Your task to perform on an android device: turn on the 12-hour format for clock Image 0: 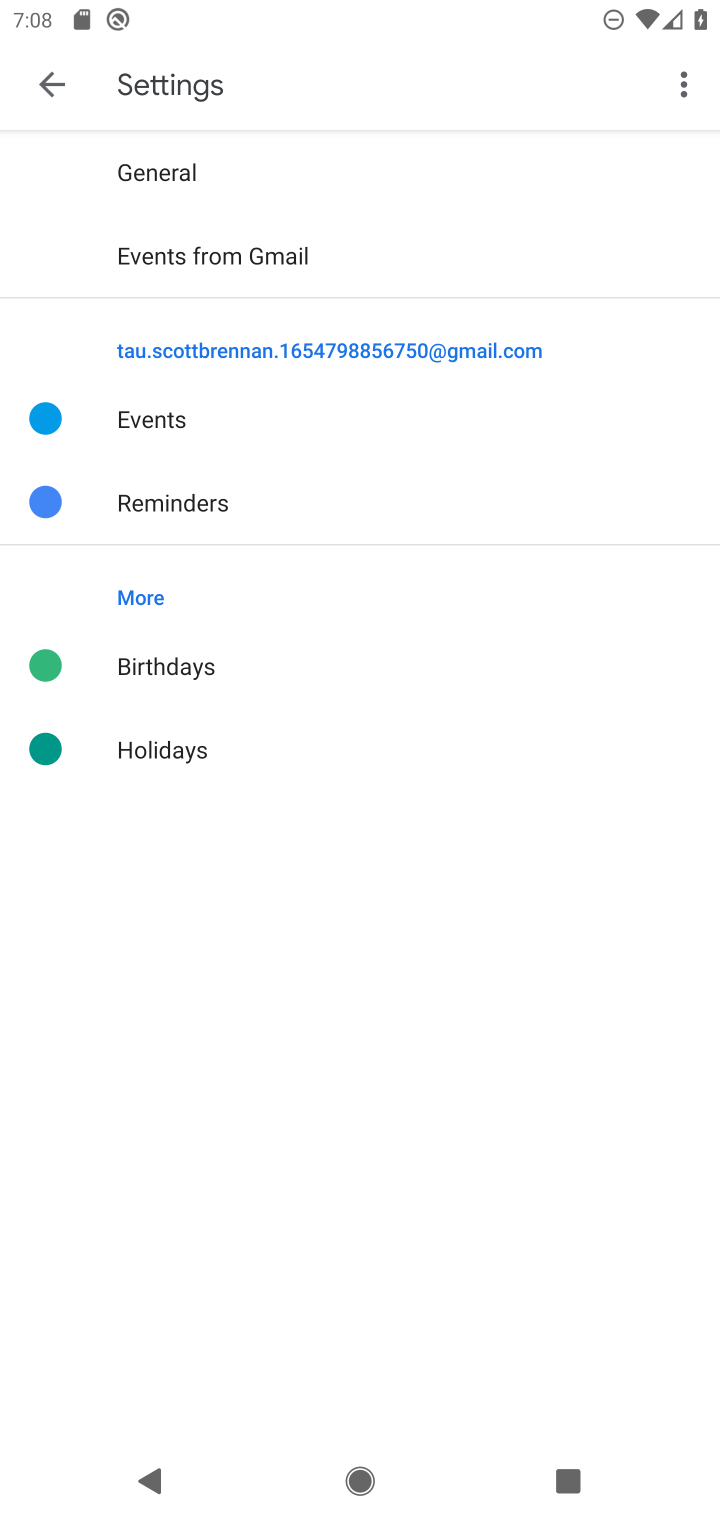
Step 0: press home button
Your task to perform on an android device: turn on the 12-hour format for clock Image 1: 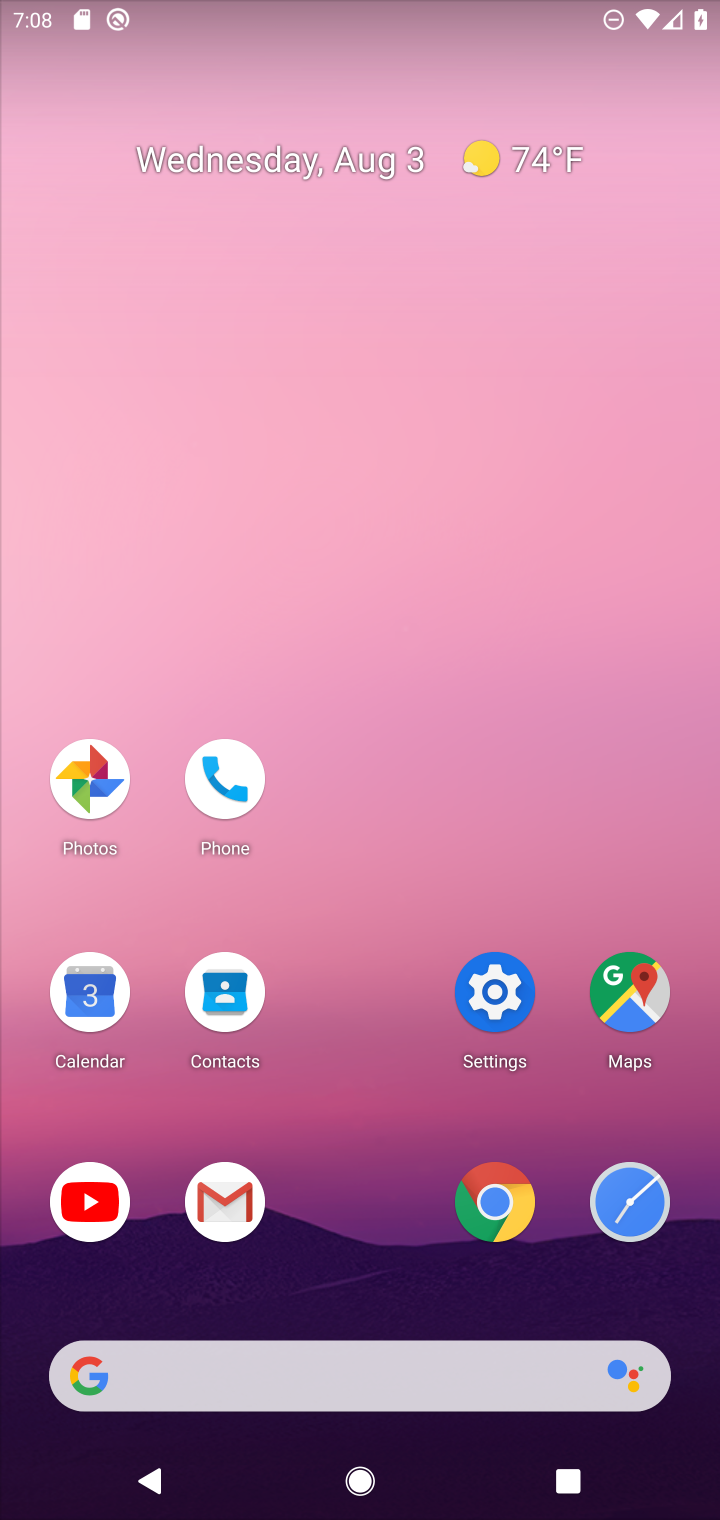
Step 1: click (626, 1199)
Your task to perform on an android device: turn on the 12-hour format for clock Image 2: 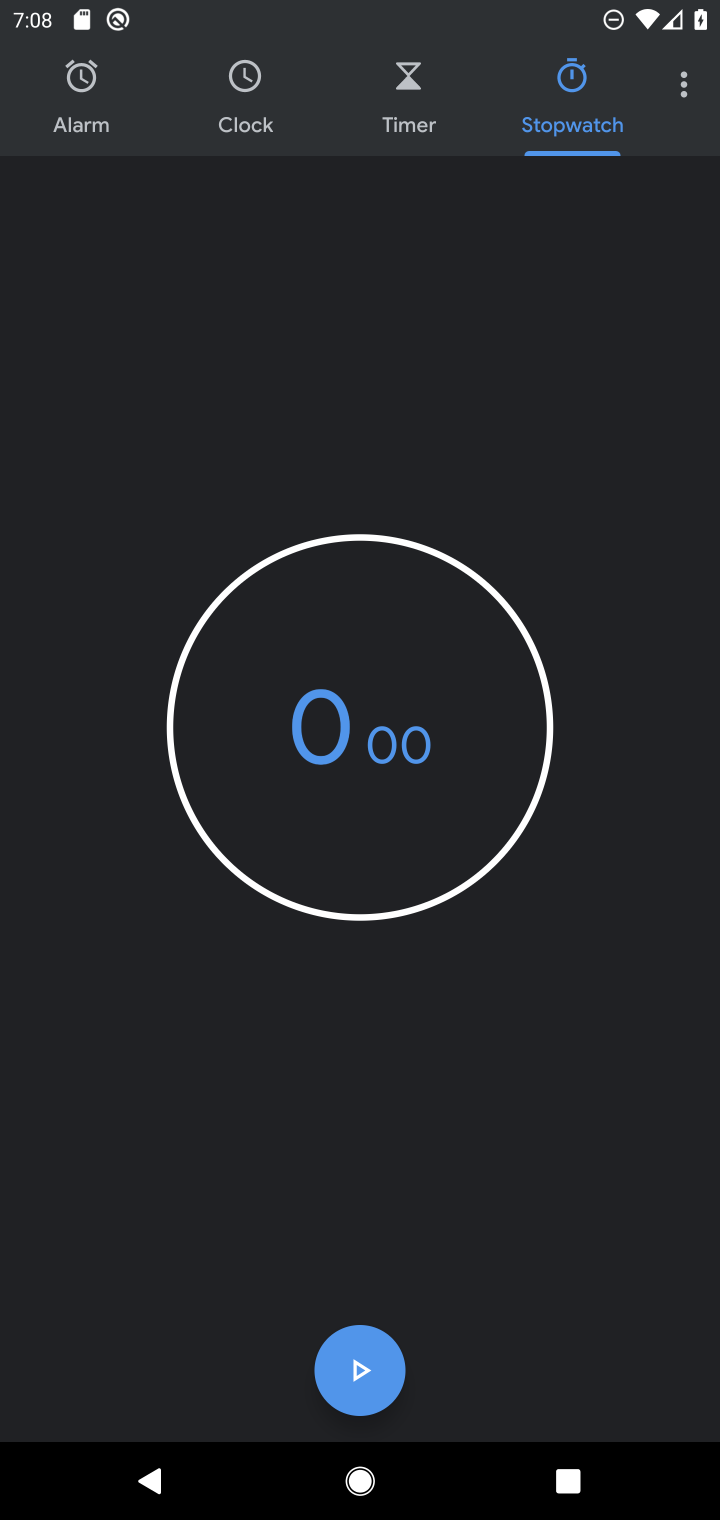
Step 2: click (686, 80)
Your task to perform on an android device: turn on the 12-hour format for clock Image 3: 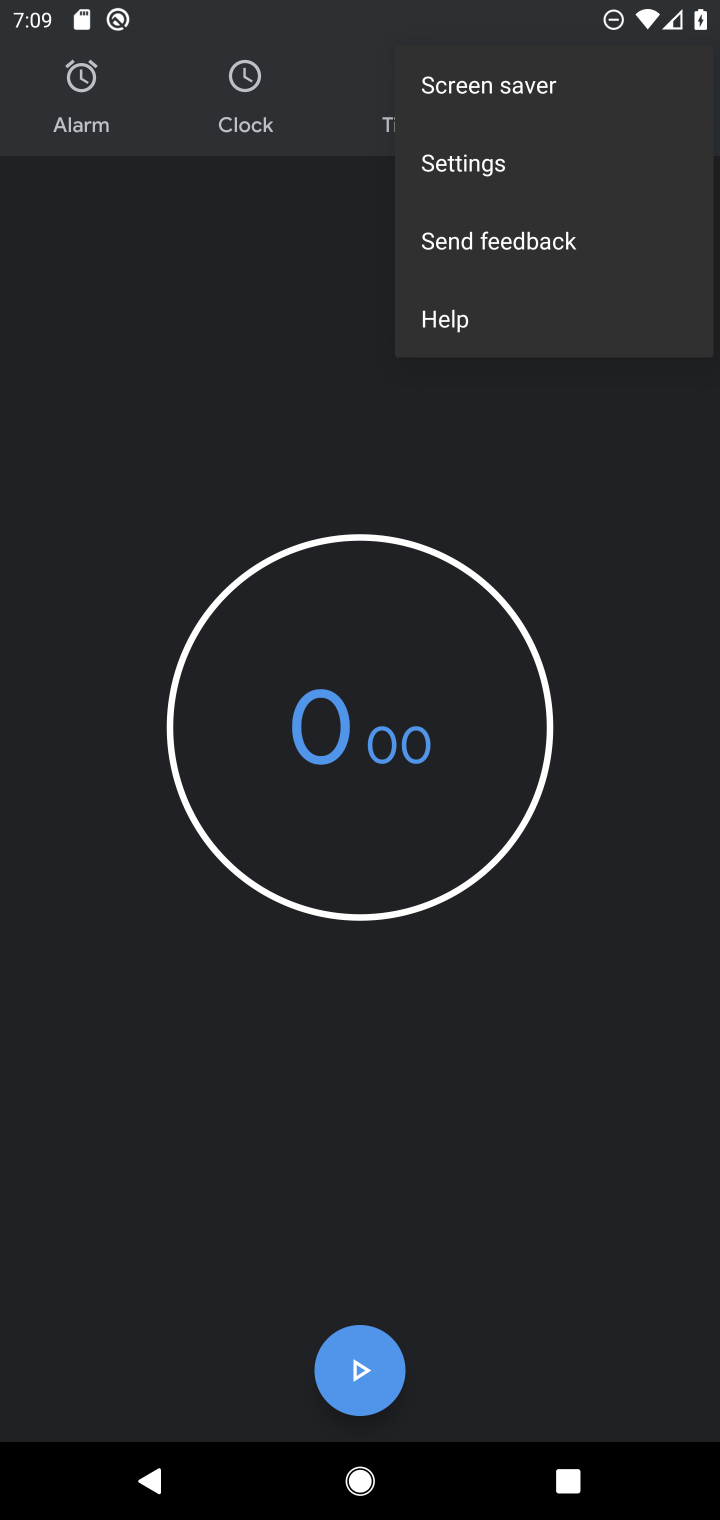
Step 3: click (486, 168)
Your task to perform on an android device: turn on the 12-hour format for clock Image 4: 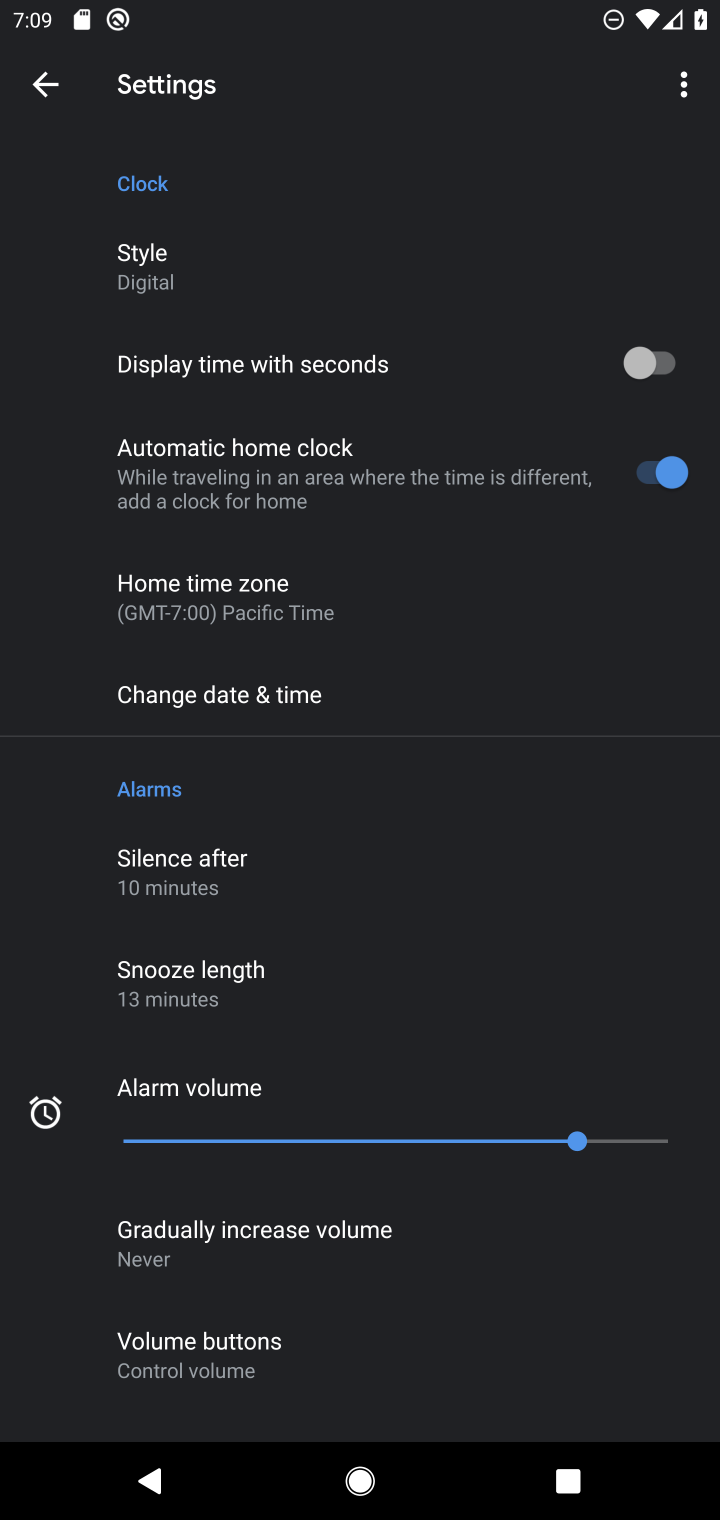
Step 4: click (215, 696)
Your task to perform on an android device: turn on the 12-hour format for clock Image 5: 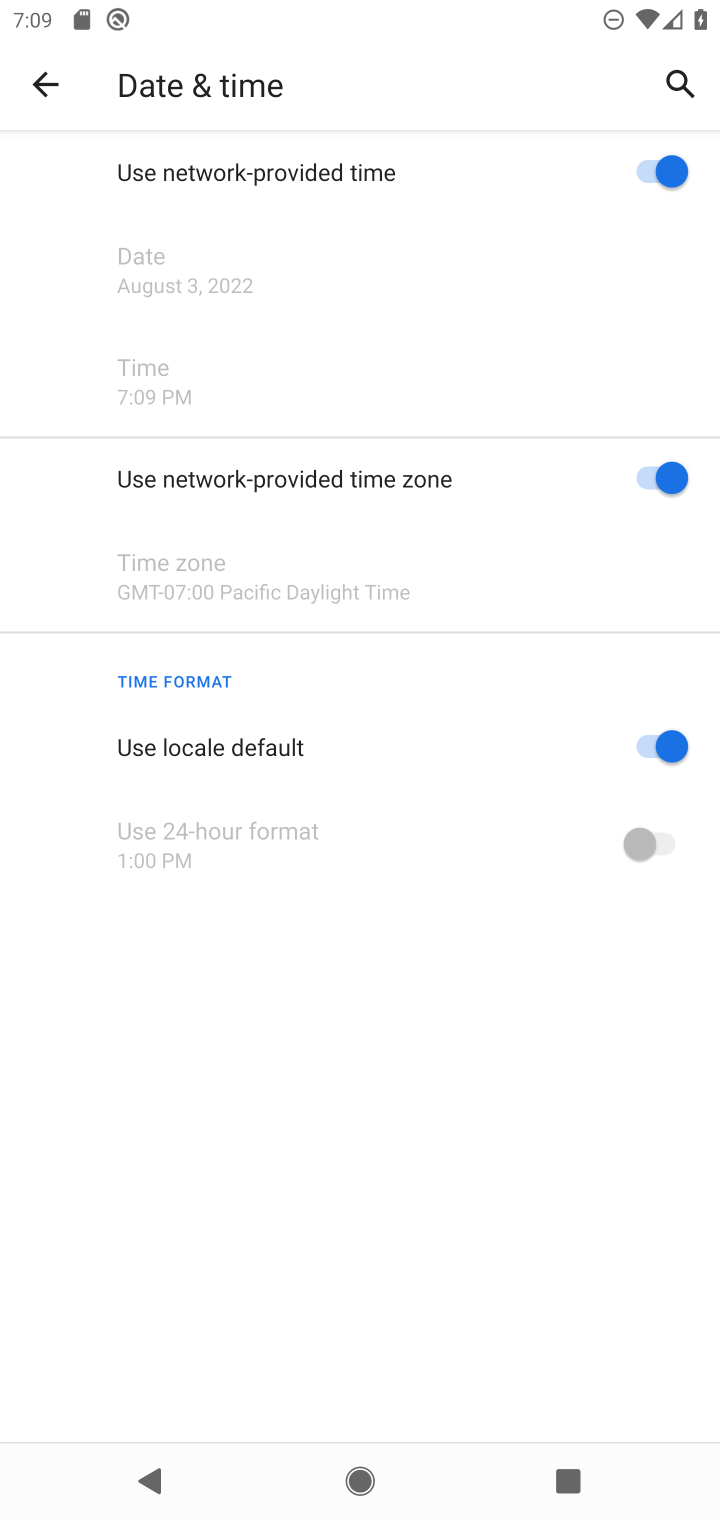
Step 5: task complete